Your task to perform on an android device: find which apps use the phone's location Image 0: 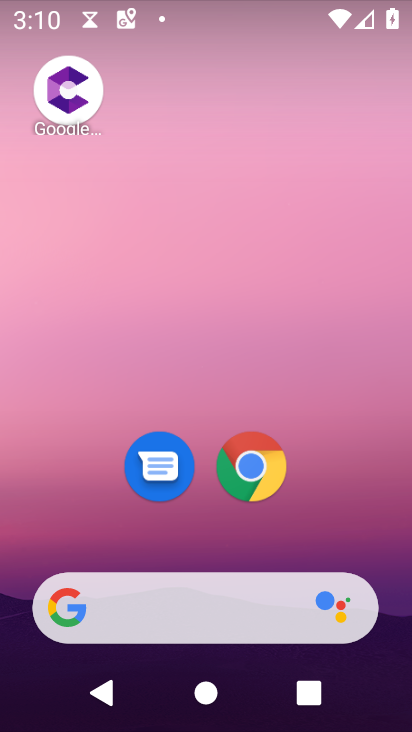
Step 0: drag from (364, 508) to (292, 63)
Your task to perform on an android device: find which apps use the phone's location Image 1: 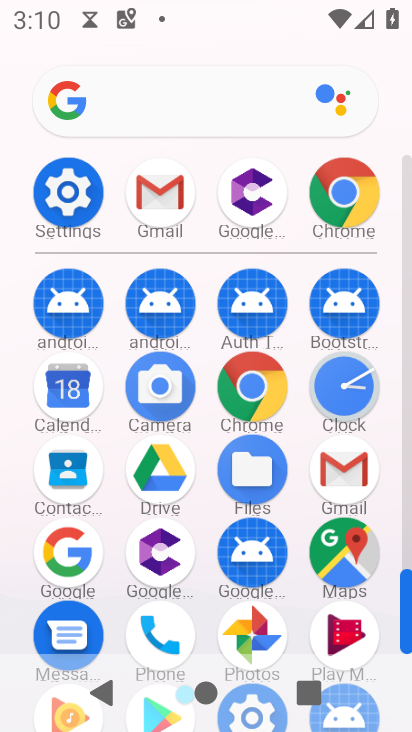
Step 1: click (80, 197)
Your task to perform on an android device: find which apps use the phone's location Image 2: 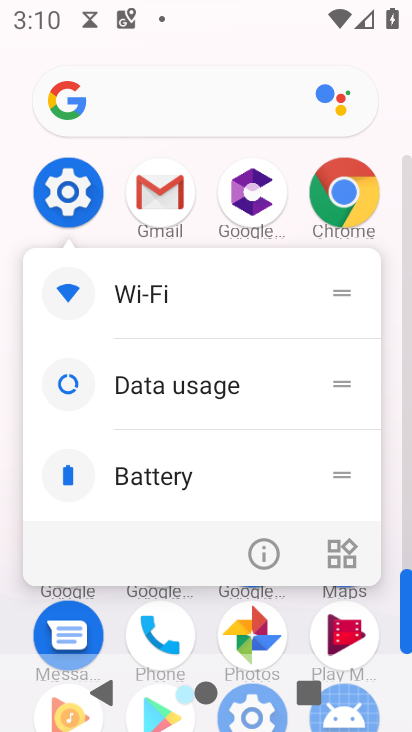
Step 2: click (79, 193)
Your task to perform on an android device: find which apps use the phone's location Image 3: 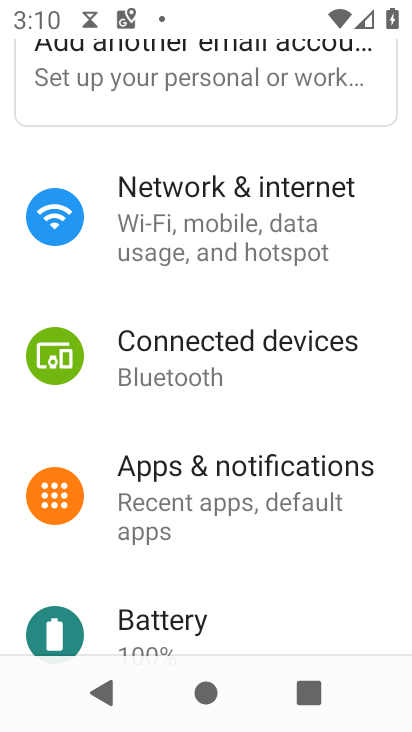
Step 3: drag from (336, 572) to (352, 60)
Your task to perform on an android device: find which apps use the phone's location Image 4: 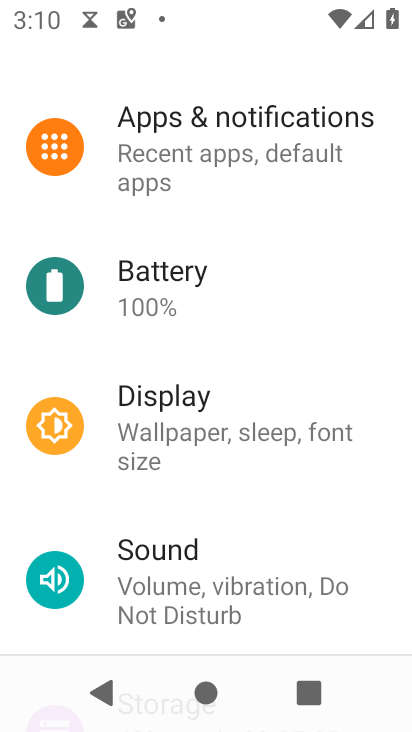
Step 4: drag from (296, 519) to (279, 140)
Your task to perform on an android device: find which apps use the phone's location Image 5: 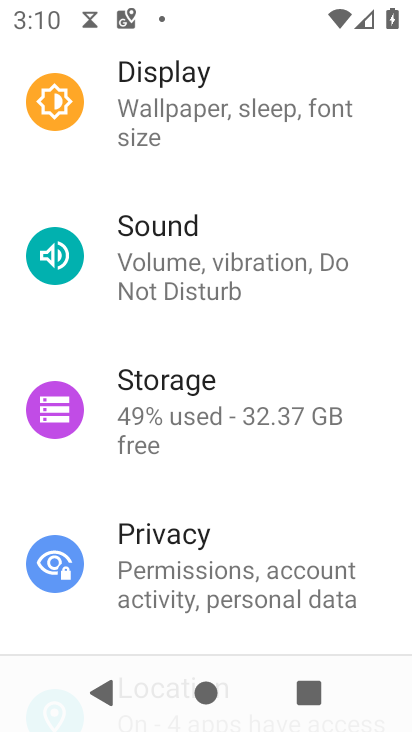
Step 5: drag from (281, 536) to (251, 215)
Your task to perform on an android device: find which apps use the phone's location Image 6: 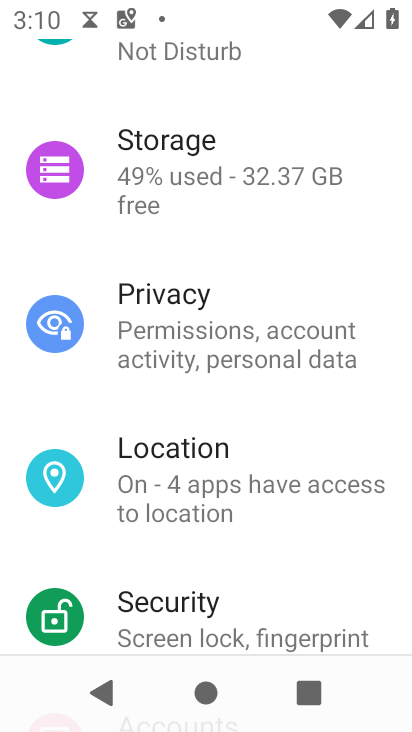
Step 6: click (225, 476)
Your task to perform on an android device: find which apps use the phone's location Image 7: 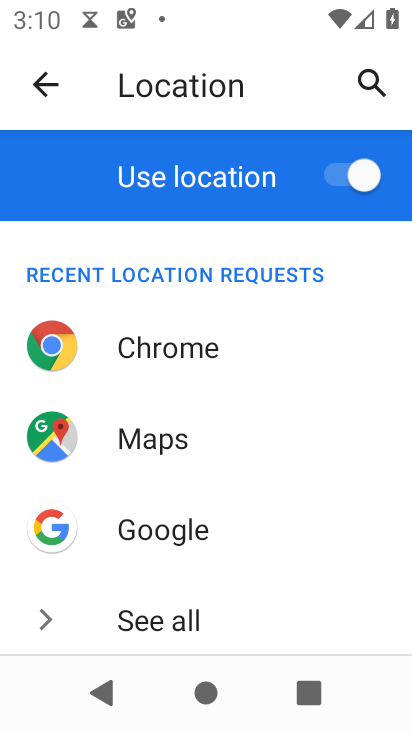
Step 7: drag from (261, 525) to (265, 241)
Your task to perform on an android device: find which apps use the phone's location Image 8: 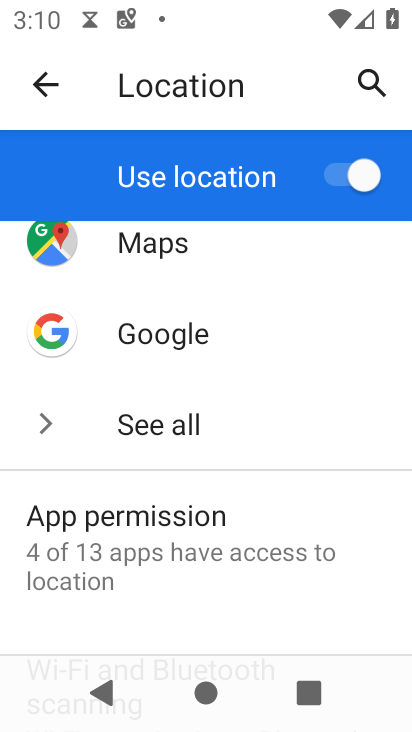
Step 8: click (228, 397)
Your task to perform on an android device: find which apps use the phone's location Image 9: 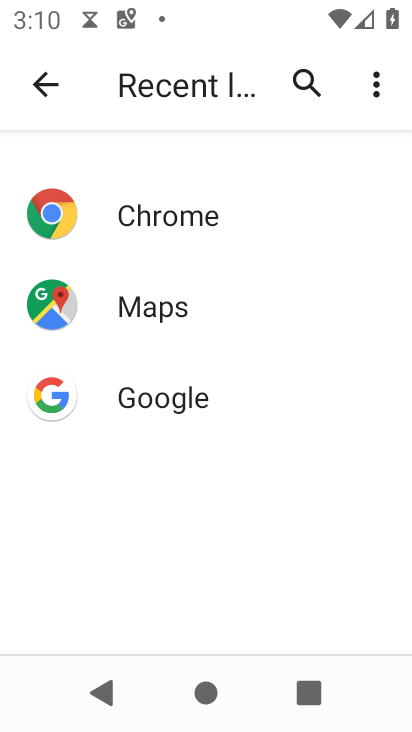
Step 9: task complete